Your task to perform on an android device: change alarm snooze length Image 0: 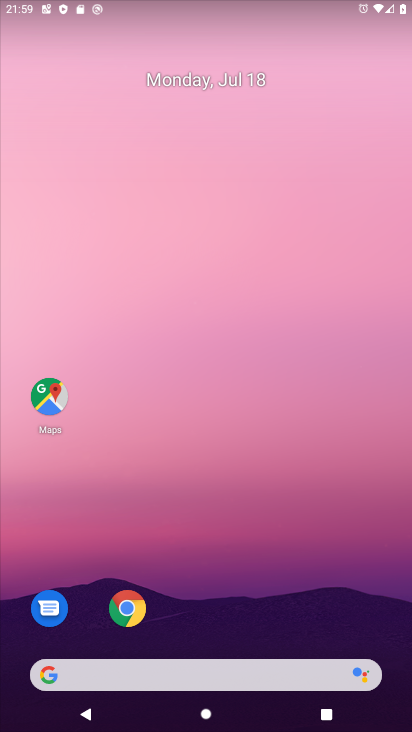
Step 0: drag from (38, 694) to (221, 250)
Your task to perform on an android device: change alarm snooze length Image 1: 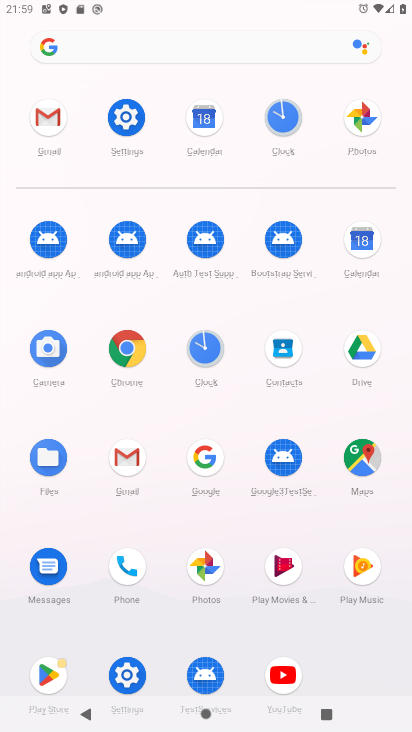
Step 1: click (221, 351)
Your task to perform on an android device: change alarm snooze length Image 2: 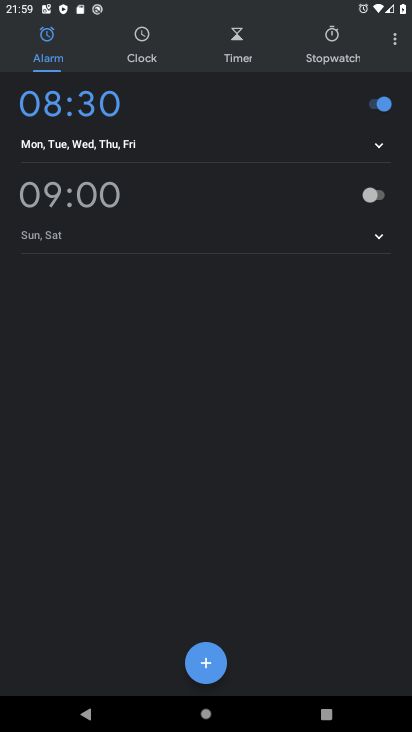
Step 2: click (399, 39)
Your task to perform on an android device: change alarm snooze length Image 3: 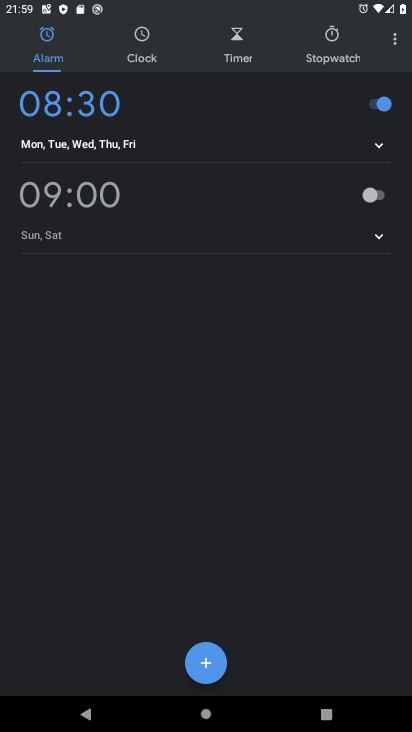
Step 3: click (393, 41)
Your task to perform on an android device: change alarm snooze length Image 4: 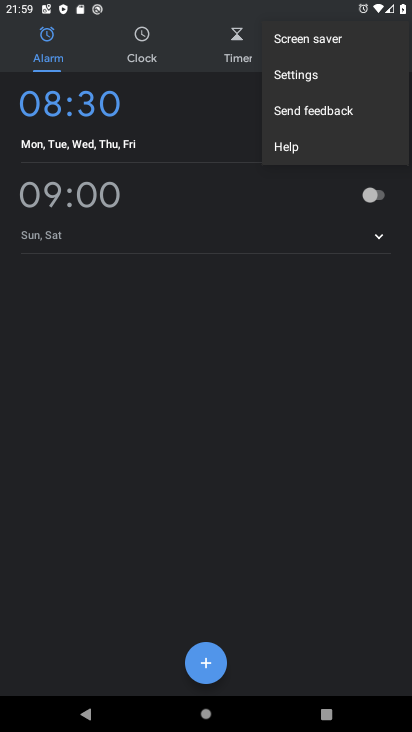
Step 4: click (300, 76)
Your task to perform on an android device: change alarm snooze length Image 5: 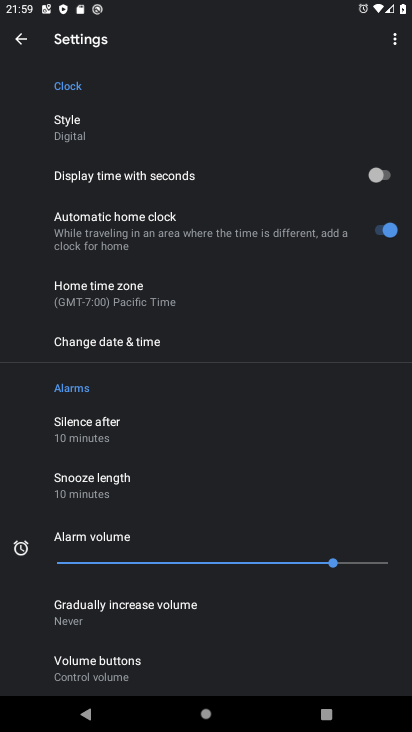
Step 5: drag from (64, 439) to (51, 494)
Your task to perform on an android device: change alarm snooze length Image 6: 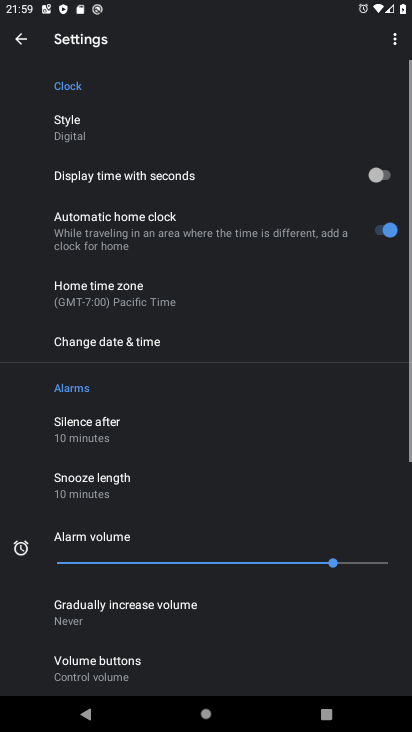
Step 6: click (69, 488)
Your task to perform on an android device: change alarm snooze length Image 7: 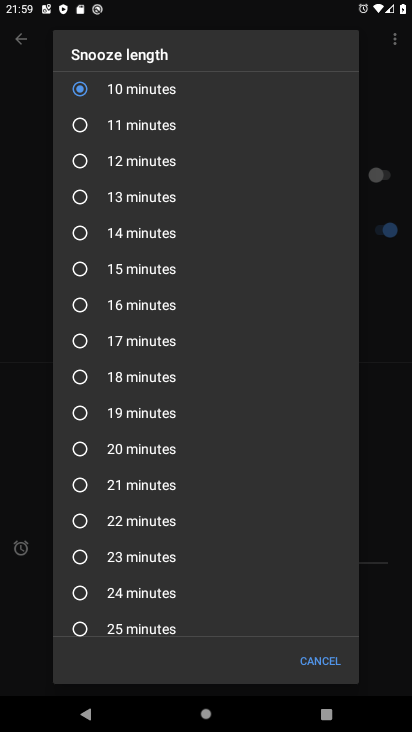
Step 7: click (98, 482)
Your task to perform on an android device: change alarm snooze length Image 8: 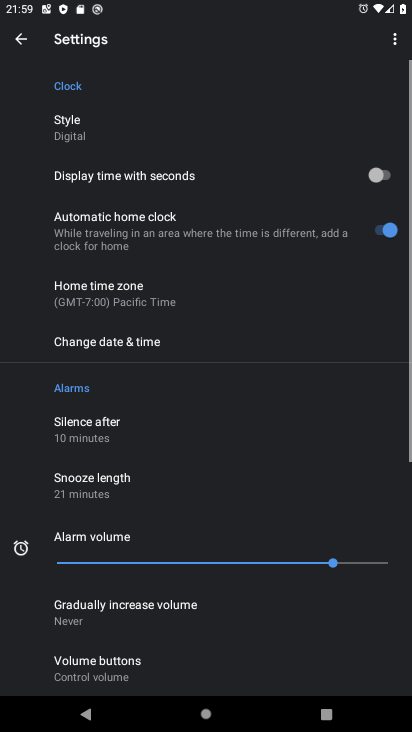
Step 8: click (98, 482)
Your task to perform on an android device: change alarm snooze length Image 9: 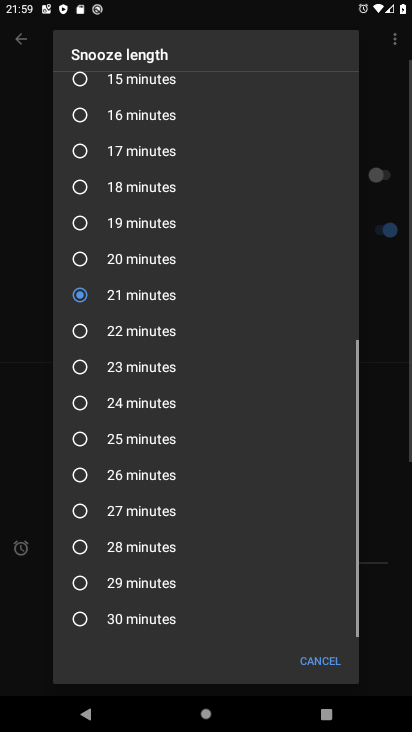
Step 9: click (82, 265)
Your task to perform on an android device: change alarm snooze length Image 10: 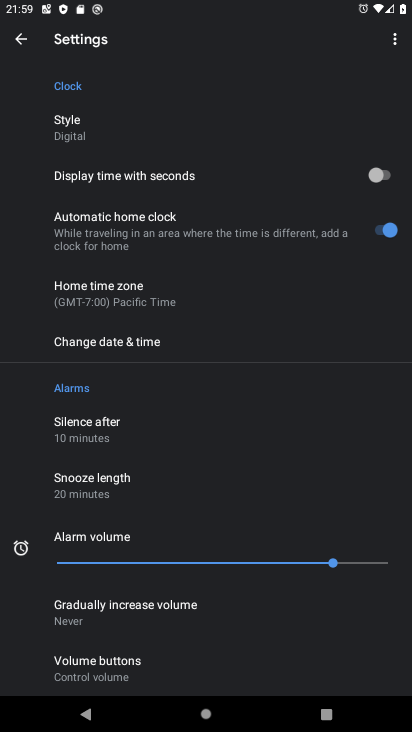
Step 10: task complete